Your task to perform on an android device: toggle pop-ups in chrome Image 0: 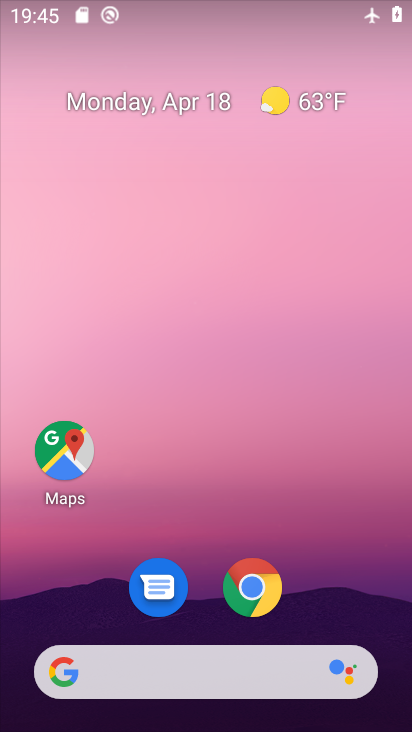
Step 0: click (264, 603)
Your task to perform on an android device: toggle pop-ups in chrome Image 1: 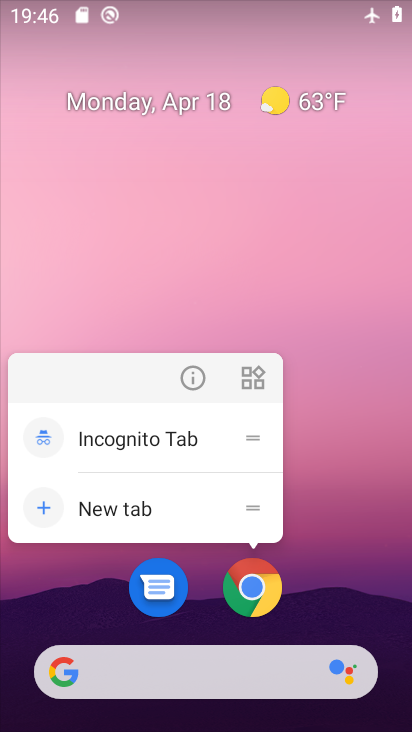
Step 1: click (364, 564)
Your task to perform on an android device: toggle pop-ups in chrome Image 2: 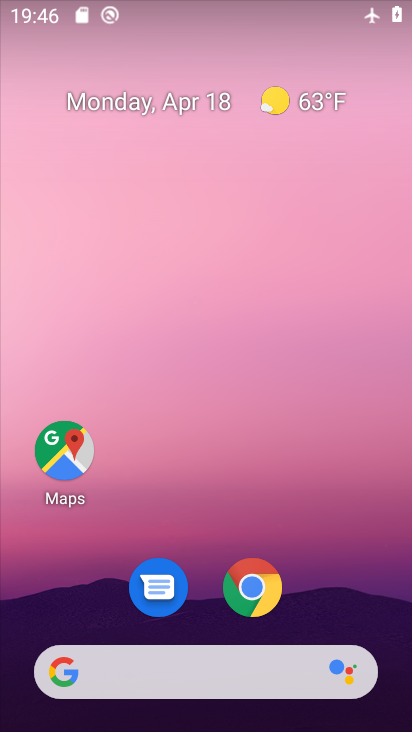
Step 2: click (264, 596)
Your task to perform on an android device: toggle pop-ups in chrome Image 3: 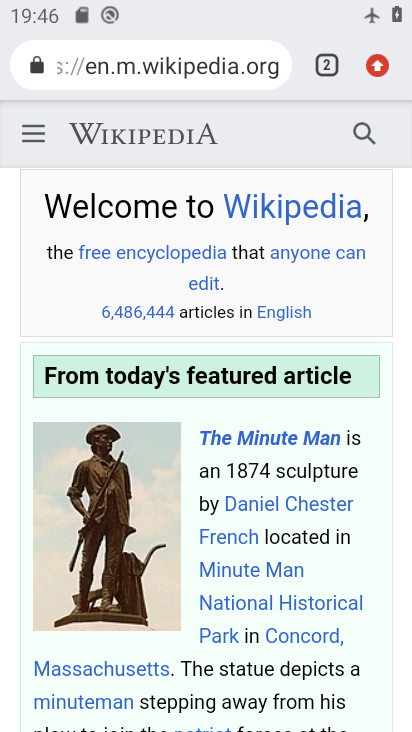
Step 3: click (377, 65)
Your task to perform on an android device: toggle pop-ups in chrome Image 4: 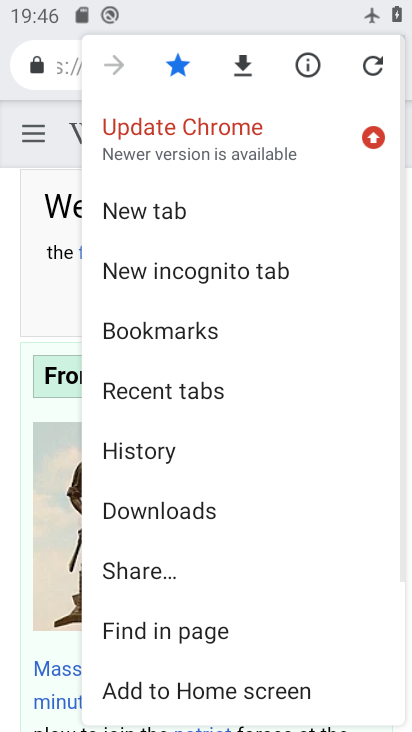
Step 4: drag from (210, 595) to (283, 273)
Your task to perform on an android device: toggle pop-ups in chrome Image 5: 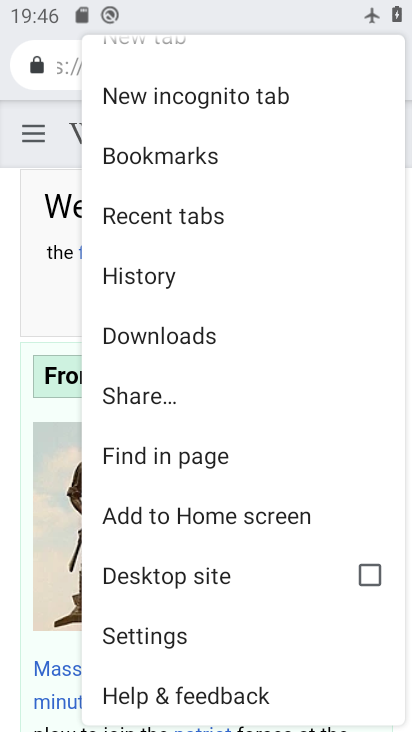
Step 5: click (183, 636)
Your task to perform on an android device: toggle pop-ups in chrome Image 6: 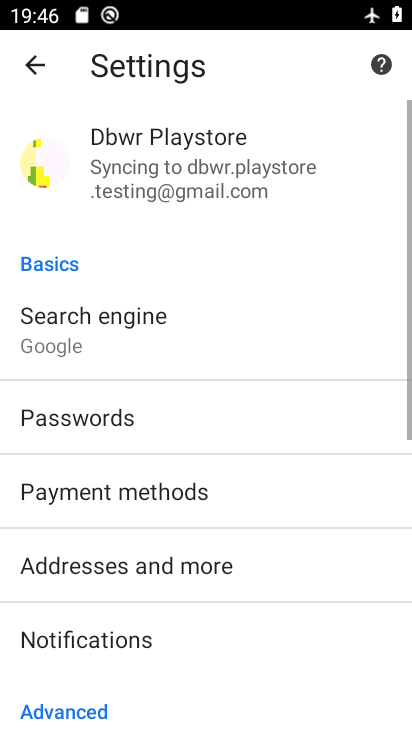
Step 6: drag from (139, 495) to (254, 240)
Your task to perform on an android device: toggle pop-ups in chrome Image 7: 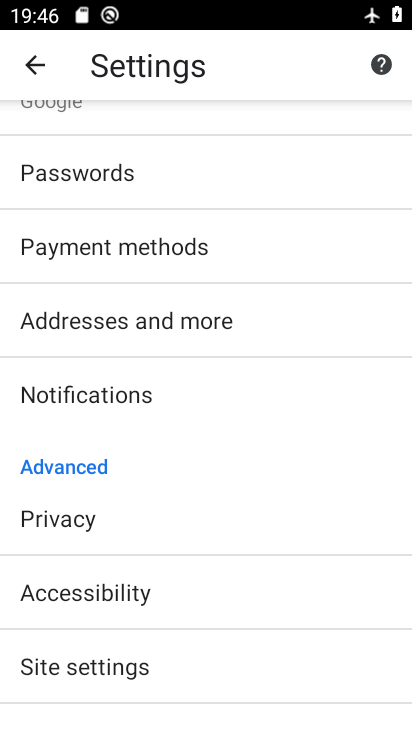
Step 7: drag from (238, 529) to (295, 241)
Your task to perform on an android device: toggle pop-ups in chrome Image 8: 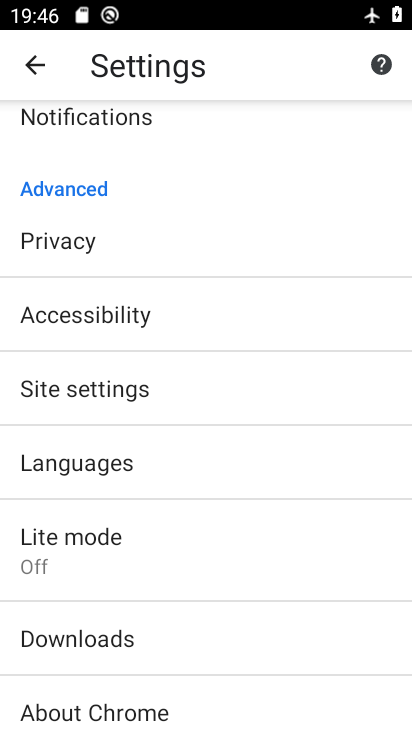
Step 8: click (153, 386)
Your task to perform on an android device: toggle pop-ups in chrome Image 9: 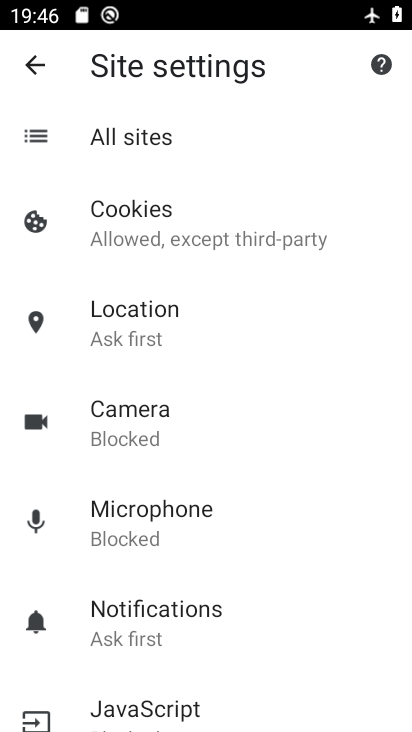
Step 9: drag from (275, 671) to (267, 394)
Your task to perform on an android device: toggle pop-ups in chrome Image 10: 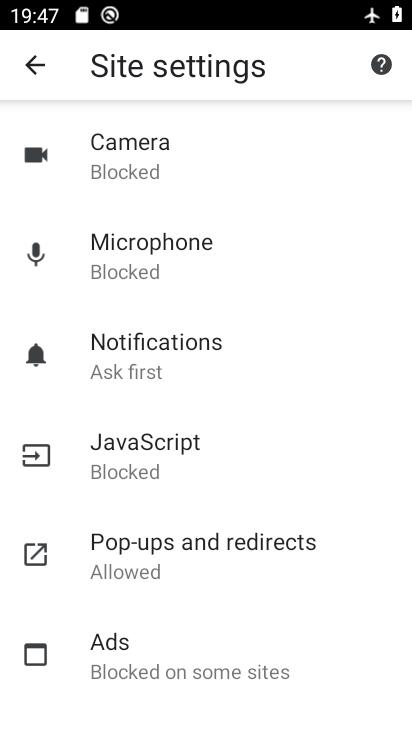
Step 10: click (238, 560)
Your task to perform on an android device: toggle pop-ups in chrome Image 11: 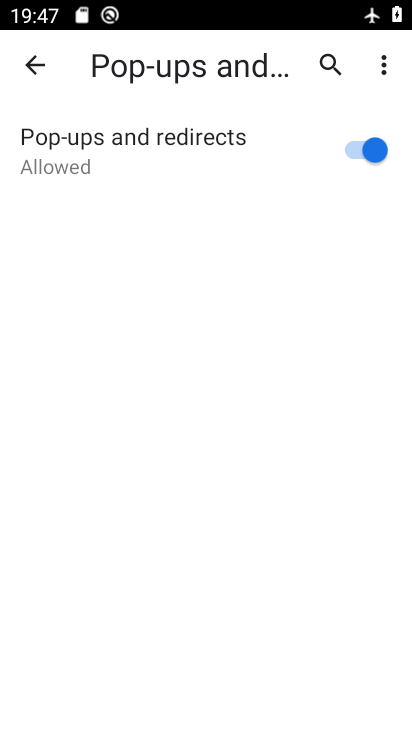
Step 11: click (353, 153)
Your task to perform on an android device: toggle pop-ups in chrome Image 12: 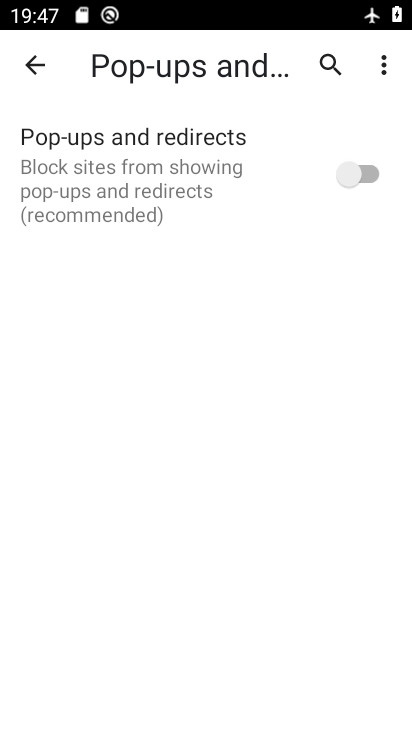
Step 12: task complete